Your task to perform on an android device: empty trash in google photos Image 0: 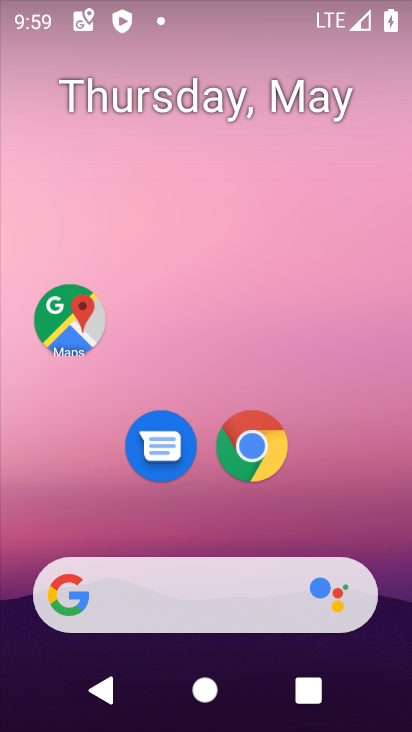
Step 0: drag from (395, 613) to (361, 167)
Your task to perform on an android device: empty trash in google photos Image 1: 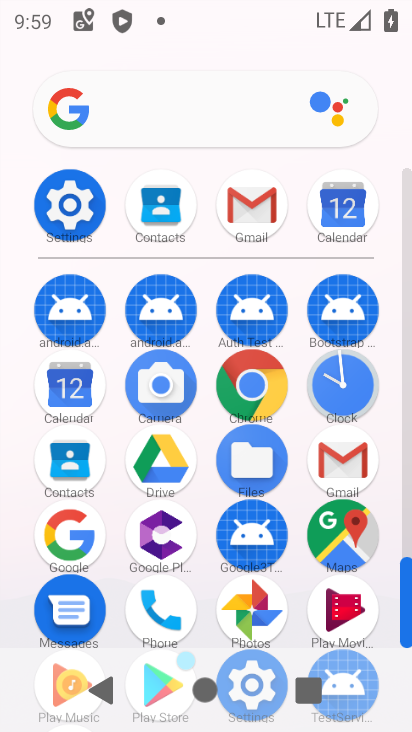
Step 1: click (250, 608)
Your task to perform on an android device: empty trash in google photos Image 2: 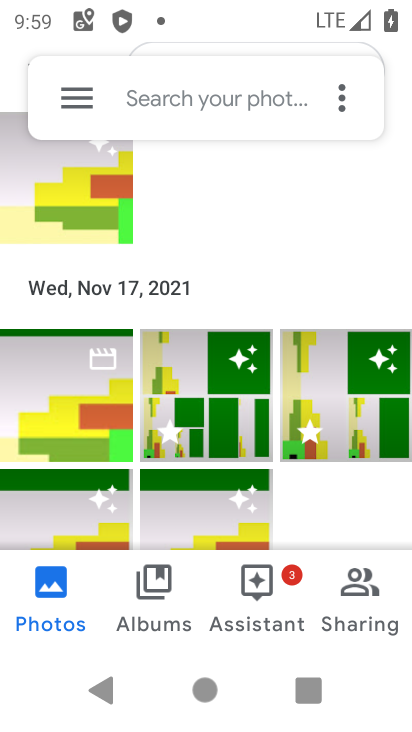
Step 2: click (75, 91)
Your task to perform on an android device: empty trash in google photos Image 3: 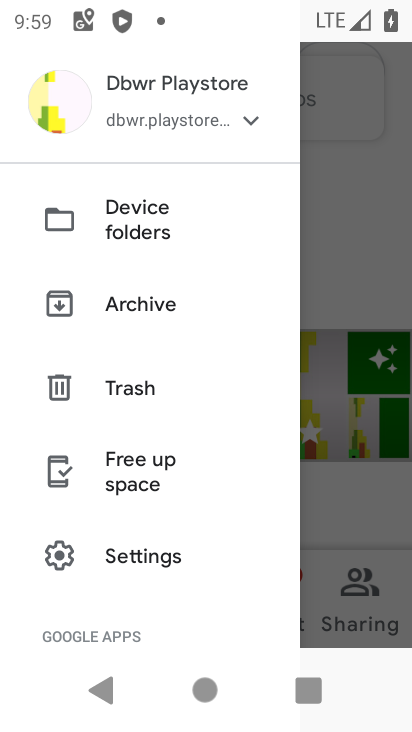
Step 3: click (128, 397)
Your task to perform on an android device: empty trash in google photos Image 4: 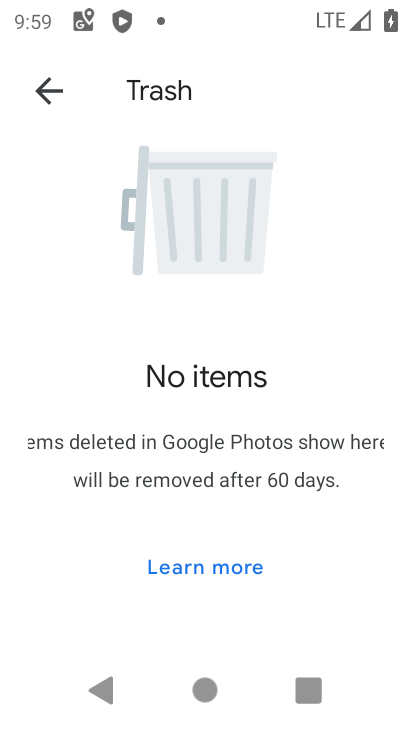
Step 4: task complete